Your task to perform on an android device: What is the news today? Image 0: 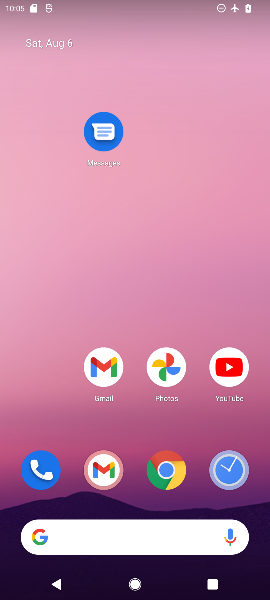
Step 0: click (196, 272)
Your task to perform on an android device: What is the news today? Image 1: 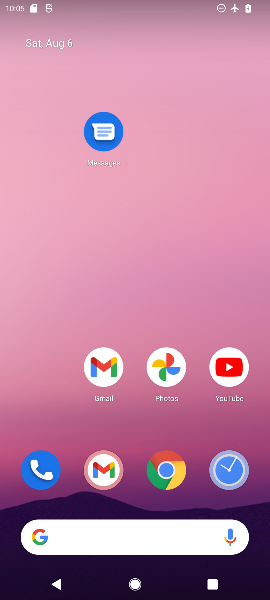
Step 1: click (43, 370)
Your task to perform on an android device: What is the news today? Image 2: 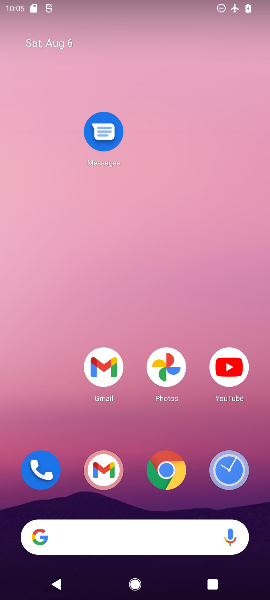
Step 2: drag from (84, 512) to (163, 1)
Your task to perform on an android device: What is the news today? Image 3: 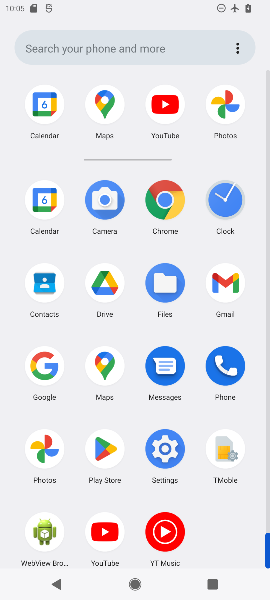
Step 3: click (50, 458)
Your task to perform on an android device: What is the news today? Image 4: 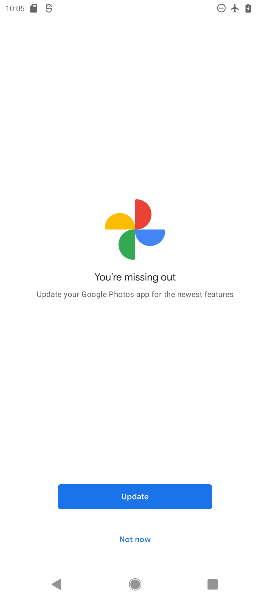
Step 4: click (137, 534)
Your task to perform on an android device: What is the news today? Image 5: 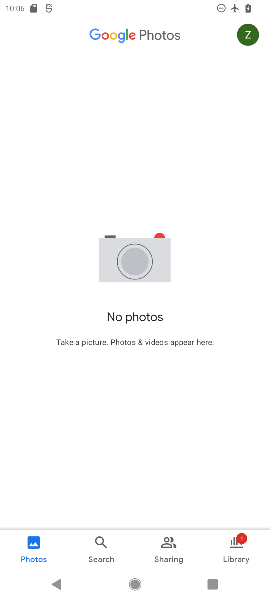
Step 5: press home button
Your task to perform on an android device: What is the news today? Image 6: 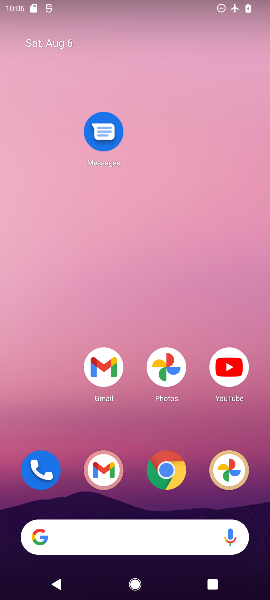
Step 6: drag from (193, 556) to (74, 70)
Your task to perform on an android device: What is the news today? Image 7: 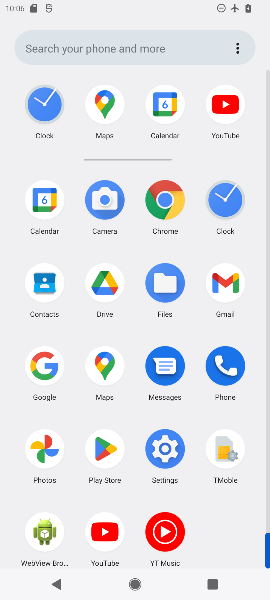
Step 7: click (43, 381)
Your task to perform on an android device: What is the news today? Image 8: 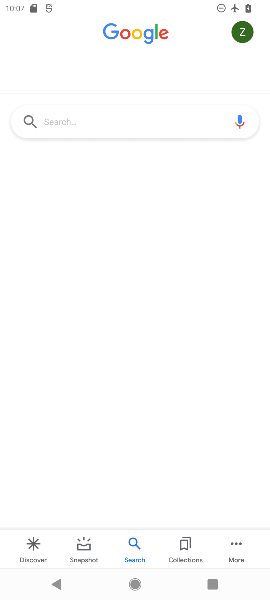
Step 8: click (129, 114)
Your task to perform on an android device: What is the news today? Image 9: 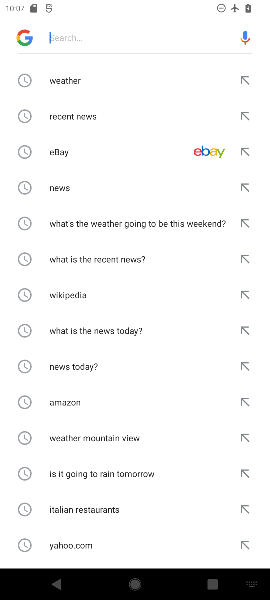
Step 9: click (80, 187)
Your task to perform on an android device: What is the news today? Image 10: 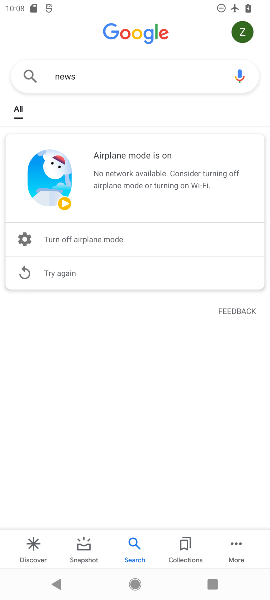
Step 10: task complete